Your task to perform on an android device: Open Reddit.com Image 0: 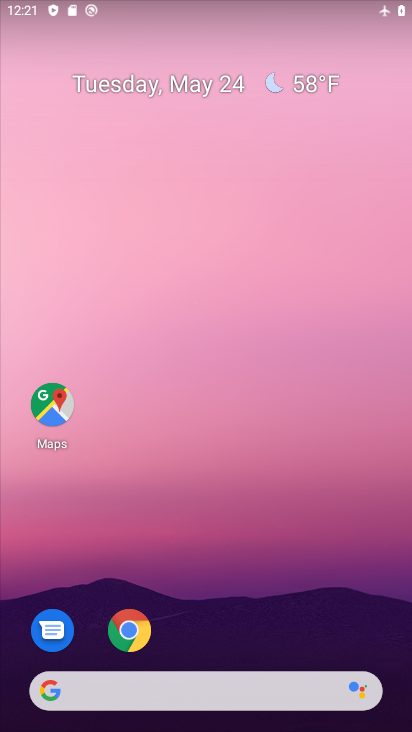
Step 0: click (131, 632)
Your task to perform on an android device: Open Reddit.com Image 1: 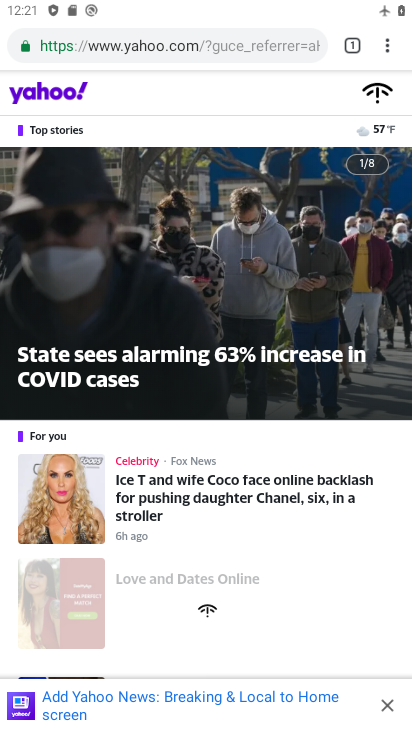
Step 1: click (215, 45)
Your task to perform on an android device: Open Reddit.com Image 2: 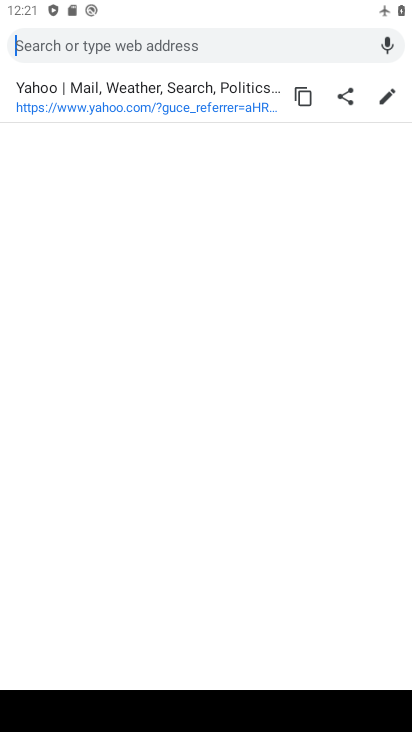
Step 2: type "Reddit.com"
Your task to perform on an android device: Open Reddit.com Image 3: 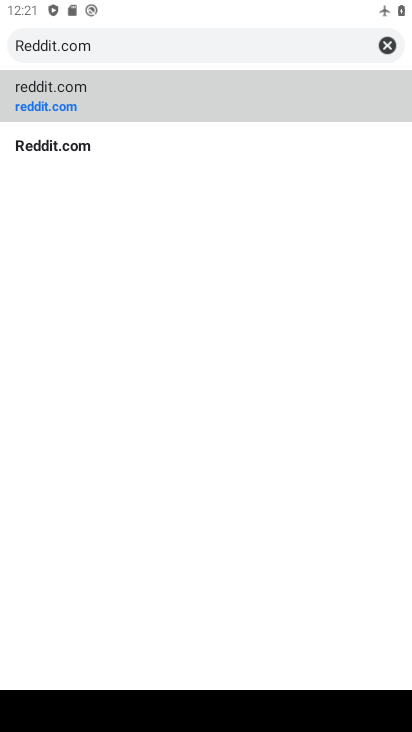
Step 3: click (33, 151)
Your task to perform on an android device: Open Reddit.com Image 4: 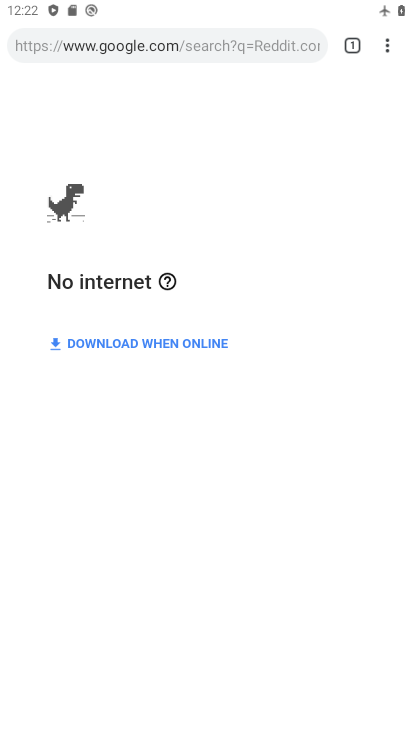
Step 4: task complete